Your task to perform on an android device: Open privacy settings Image 0: 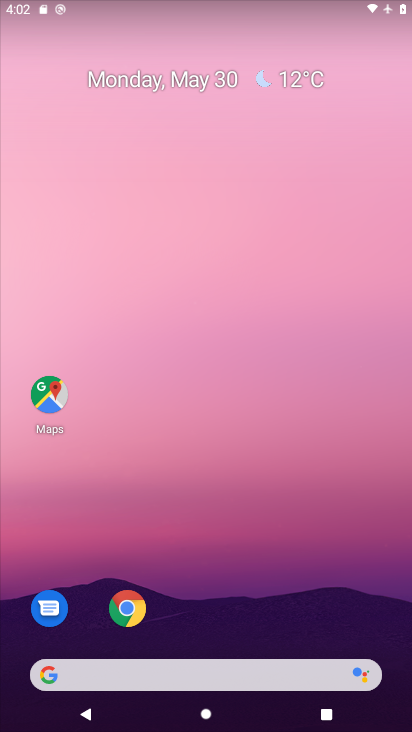
Step 0: drag from (216, 309) to (212, 99)
Your task to perform on an android device: Open privacy settings Image 1: 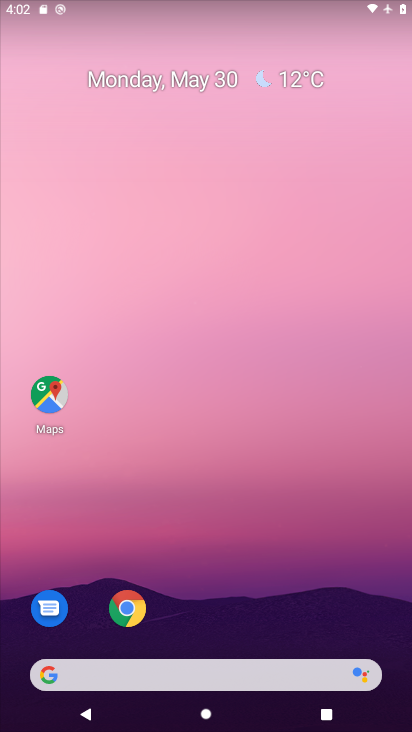
Step 1: click (128, 608)
Your task to perform on an android device: Open privacy settings Image 2: 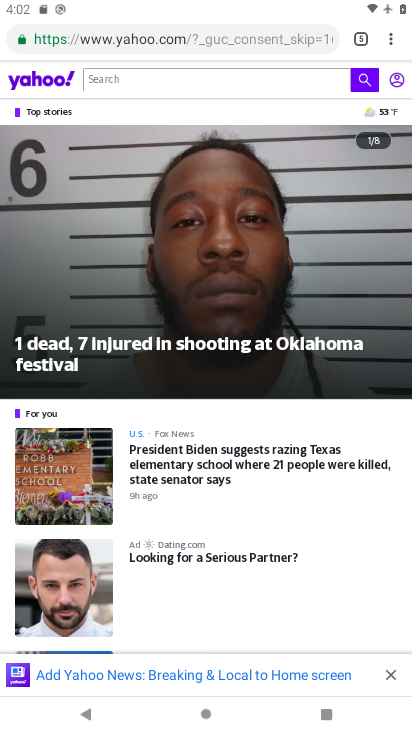
Step 2: click (384, 51)
Your task to perform on an android device: Open privacy settings Image 3: 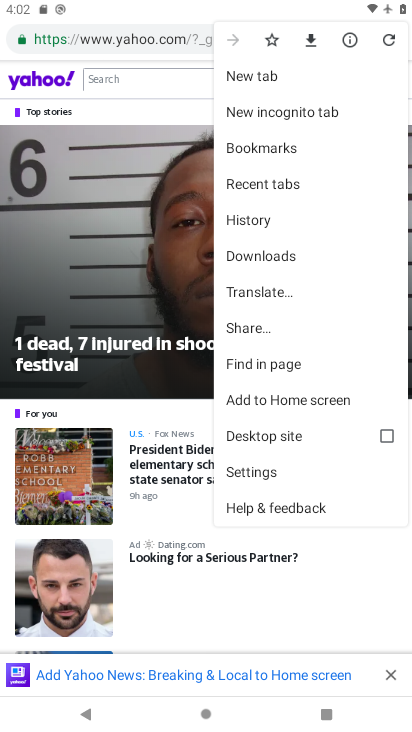
Step 3: click (258, 475)
Your task to perform on an android device: Open privacy settings Image 4: 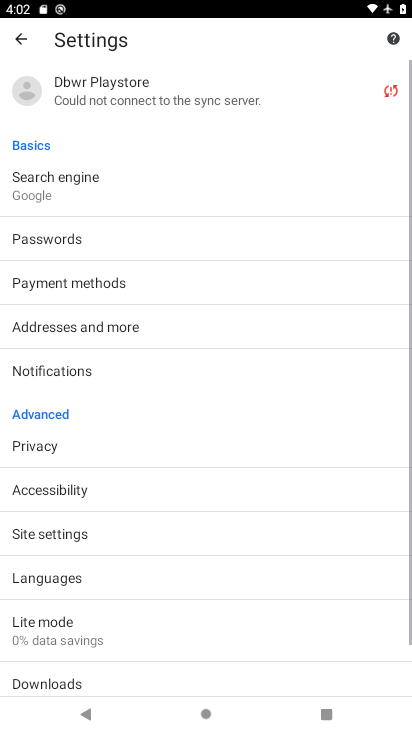
Step 4: click (105, 447)
Your task to perform on an android device: Open privacy settings Image 5: 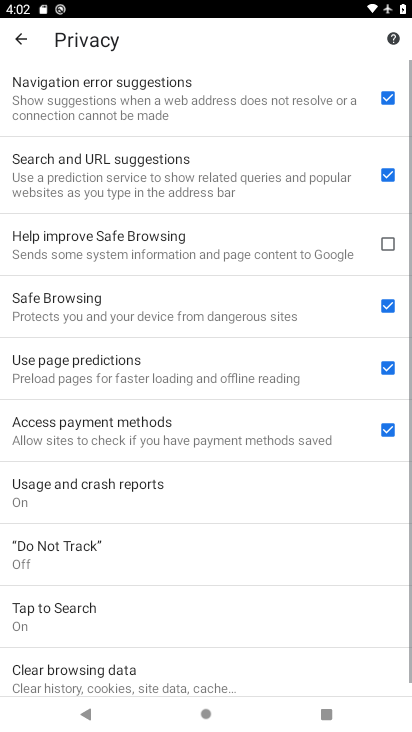
Step 5: task complete